Your task to perform on an android device: toggle priority inbox in the gmail app Image 0: 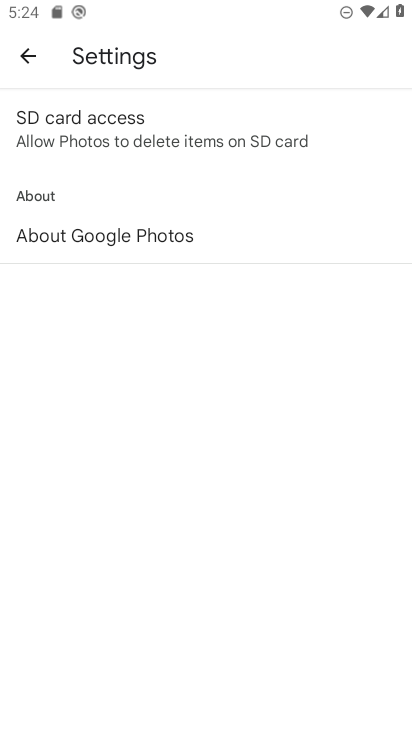
Step 0: press home button
Your task to perform on an android device: toggle priority inbox in the gmail app Image 1: 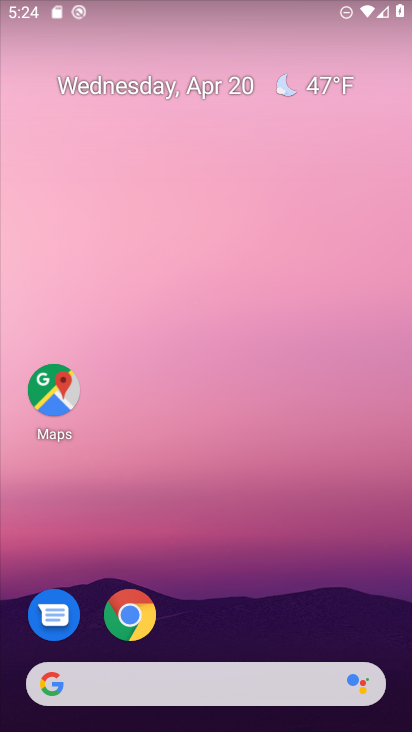
Step 1: drag from (270, 502) to (270, 69)
Your task to perform on an android device: toggle priority inbox in the gmail app Image 2: 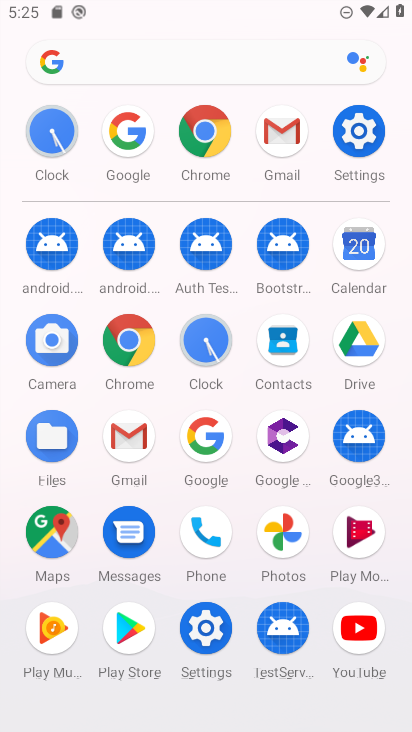
Step 2: click (280, 130)
Your task to perform on an android device: toggle priority inbox in the gmail app Image 3: 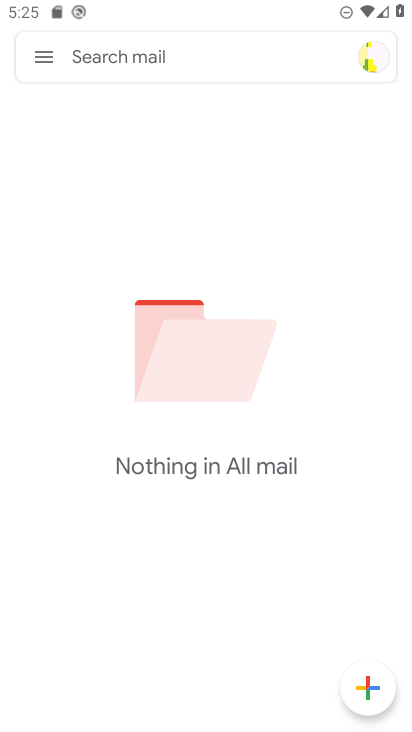
Step 3: click (42, 55)
Your task to perform on an android device: toggle priority inbox in the gmail app Image 4: 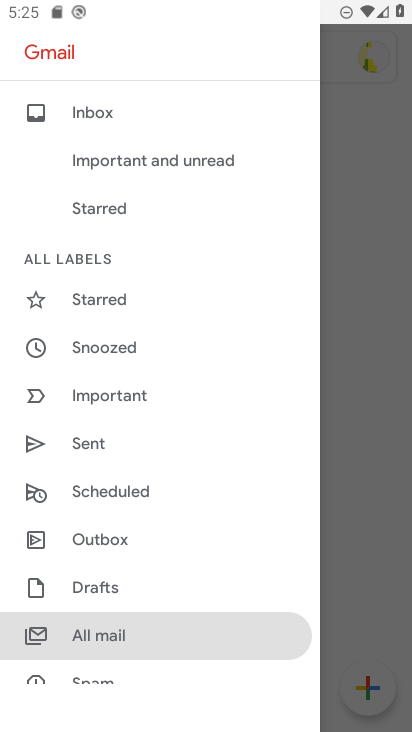
Step 4: drag from (206, 539) to (204, 179)
Your task to perform on an android device: toggle priority inbox in the gmail app Image 5: 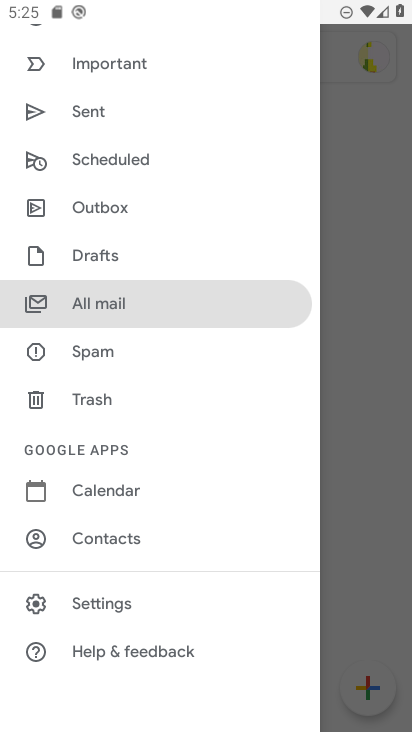
Step 5: click (122, 605)
Your task to perform on an android device: toggle priority inbox in the gmail app Image 6: 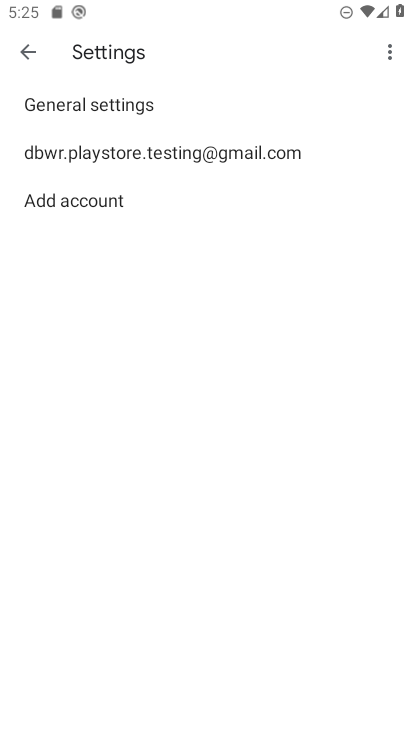
Step 6: click (199, 156)
Your task to perform on an android device: toggle priority inbox in the gmail app Image 7: 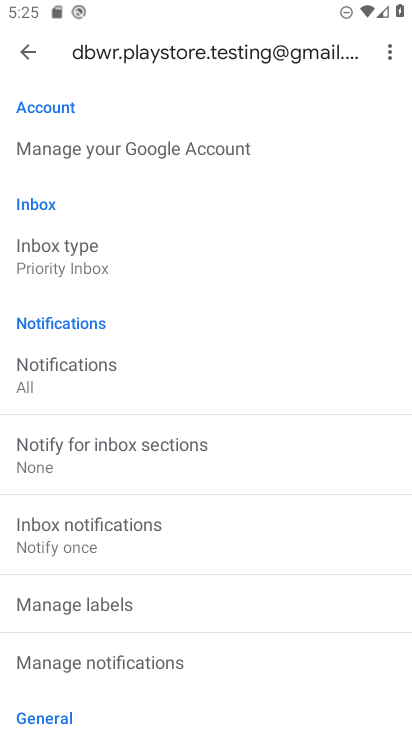
Step 7: click (87, 263)
Your task to perform on an android device: toggle priority inbox in the gmail app Image 8: 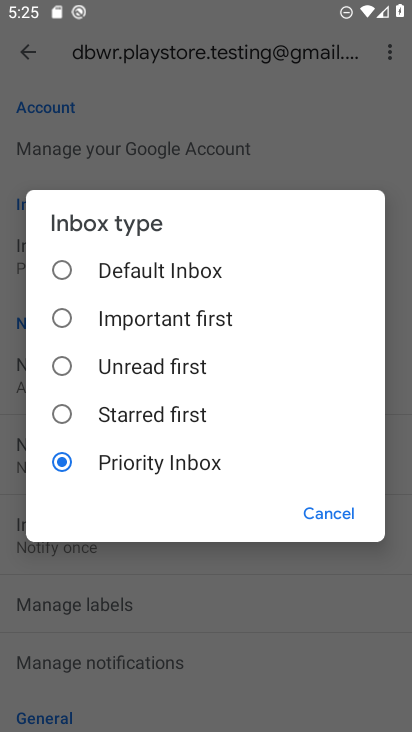
Step 8: click (64, 264)
Your task to perform on an android device: toggle priority inbox in the gmail app Image 9: 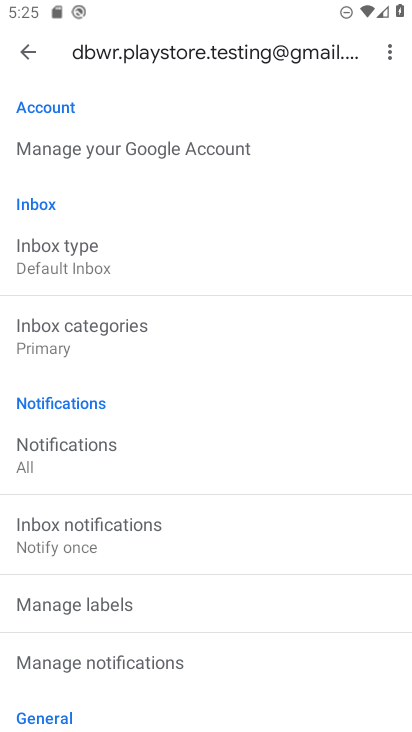
Step 9: task complete